Your task to perform on an android device: turn off sleep mode Image 0: 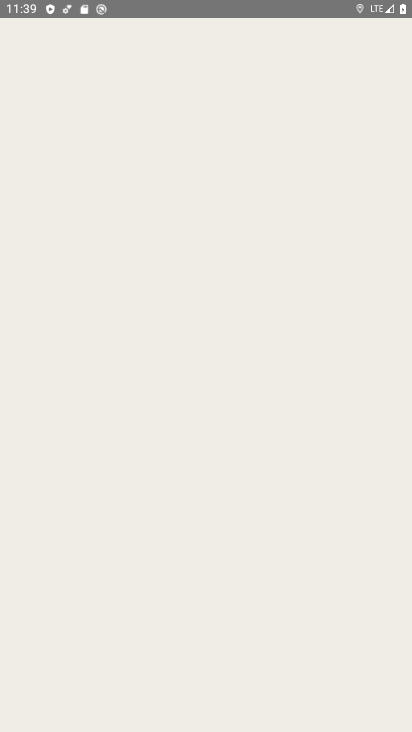
Step 0: click (302, 635)
Your task to perform on an android device: turn off sleep mode Image 1: 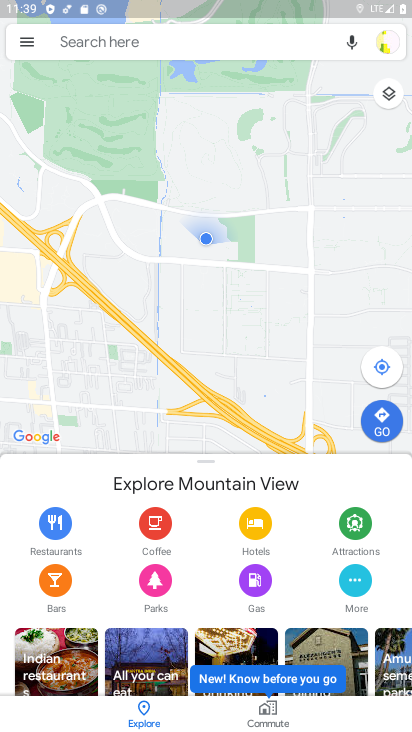
Step 1: press home button
Your task to perform on an android device: turn off sleep mode Image 2: 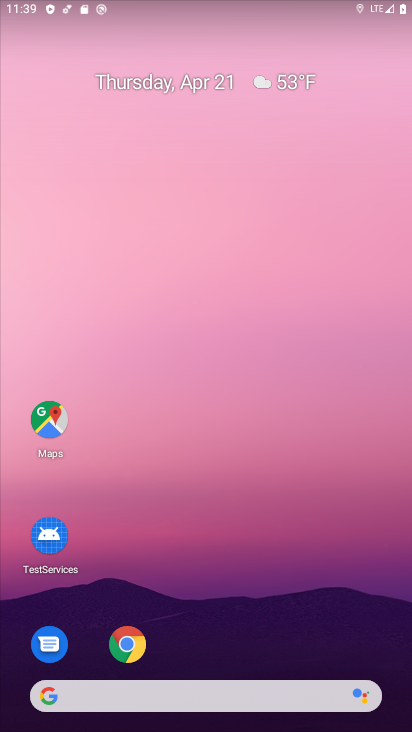
Step 2: drag from (285, 608) to (267, 193)
Your task to perform on an android device: turn off sleep mode Image 3: 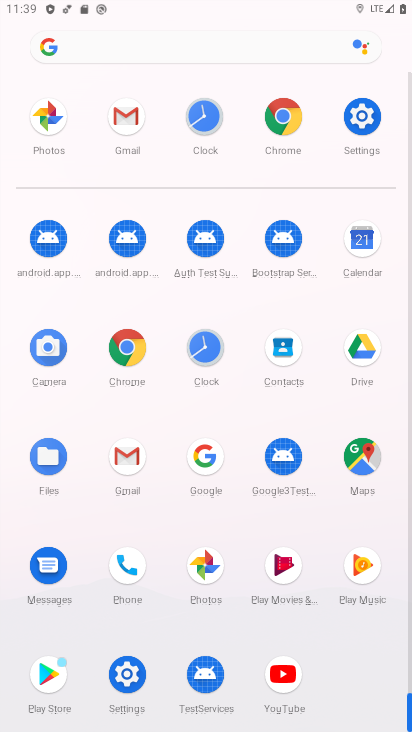
Step 3: click (358, 119)
Your task to perform on an android device: turn off sleep mode Image 4: 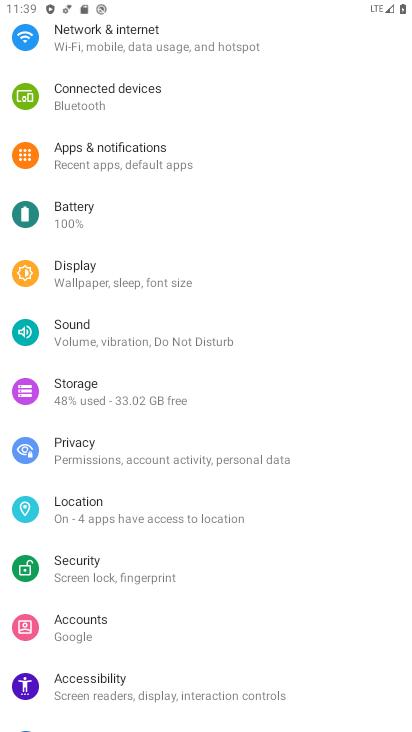
Step 4: click (131, 275)
Your task to perform on an android device: turn off sleep mode Image 5: 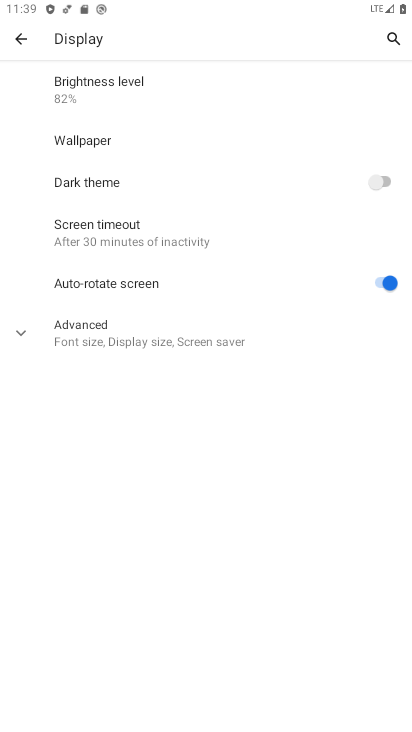
Step 5: click (174, 234)
Your task to perform on an android device: turn off sleep mode Image 6: 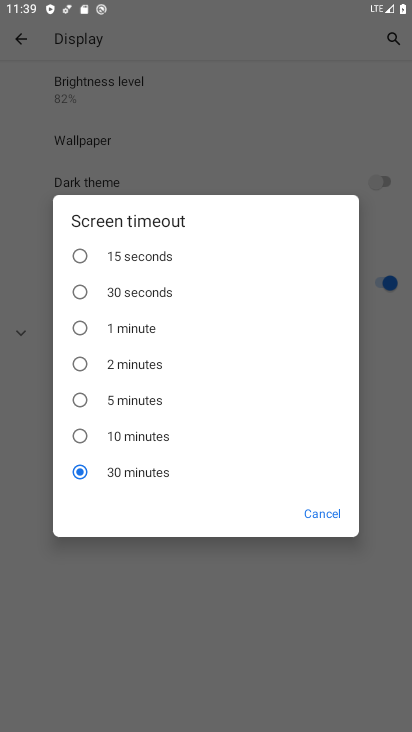
Step 6: task complete